Your task to perform on an android device: Search for "macbook pro 15 inch" on newegg.com, select the first entry, add it to the cart, then select checkout. Image 0: 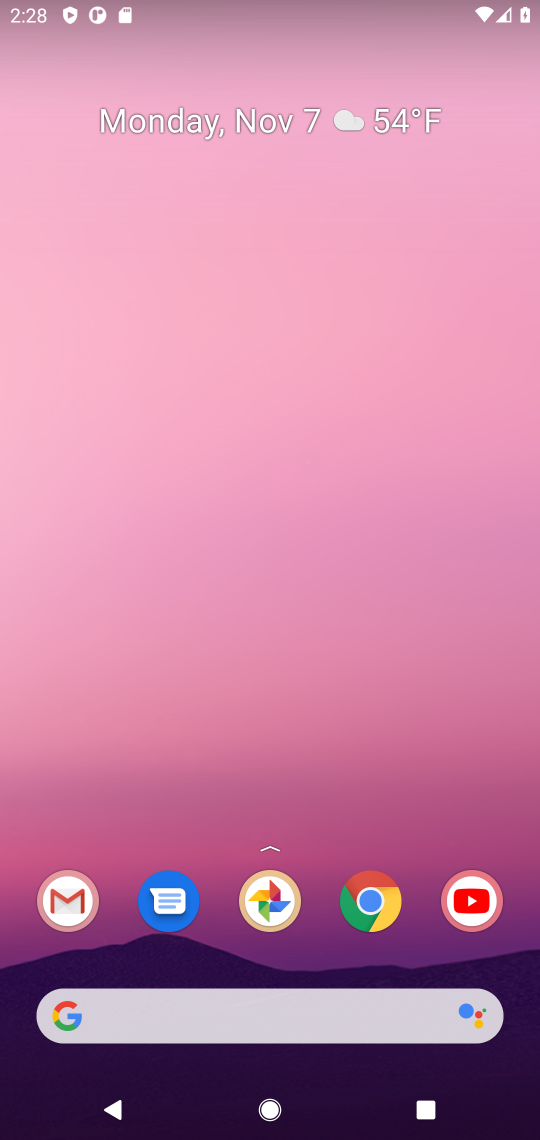
Step 0: click (373, 902)
Your task to perform on an android device: Search for "macbook pro 15 inch" on newegg.com, select the first entry, add it to the cart, then select checkout. Image 1: 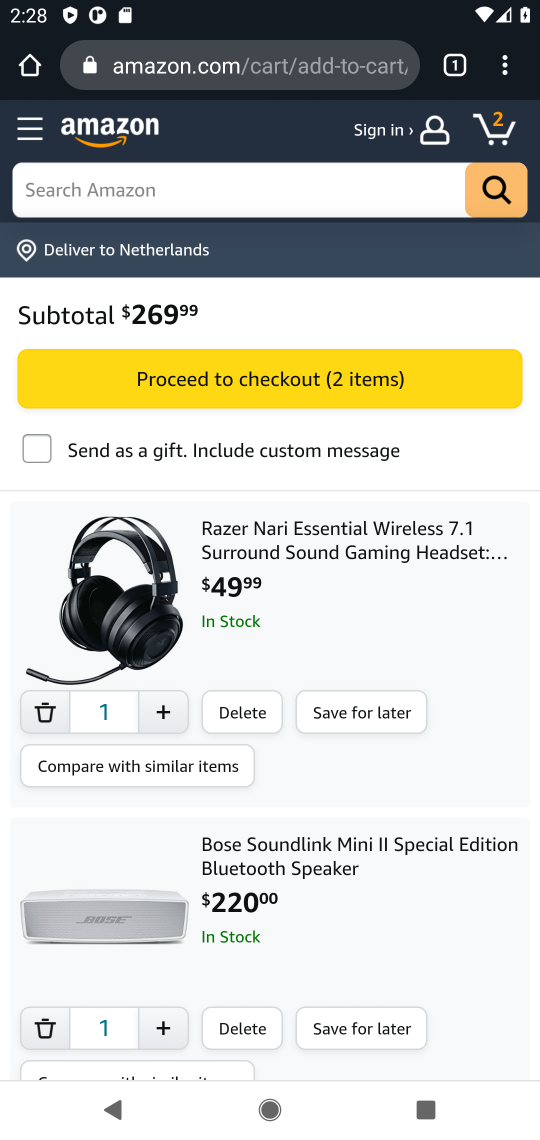
Step 1: click (194, 69)
Your task to perform on an android device: Search for "macbook pro 15 inch" on newegg.com, select the first entry, add it to the cart, then select checkout. Image 2: 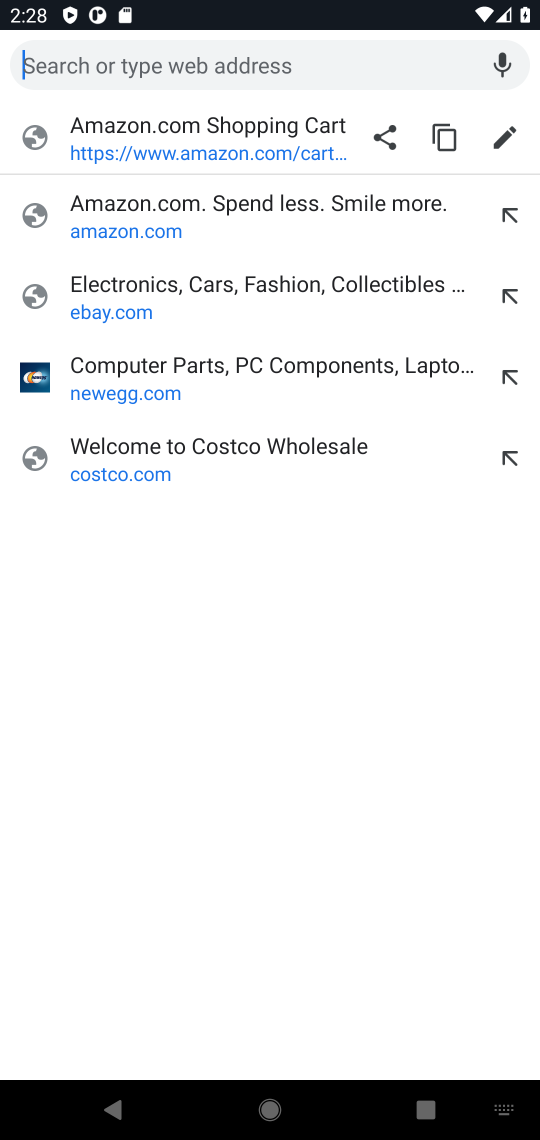
Step 2: click (134, 387)
Your task to perform on an android device: Search for "macbook pro 15 inch" on newegg.com, select the first entry, add it to the cart, then select checkout. Image 3: 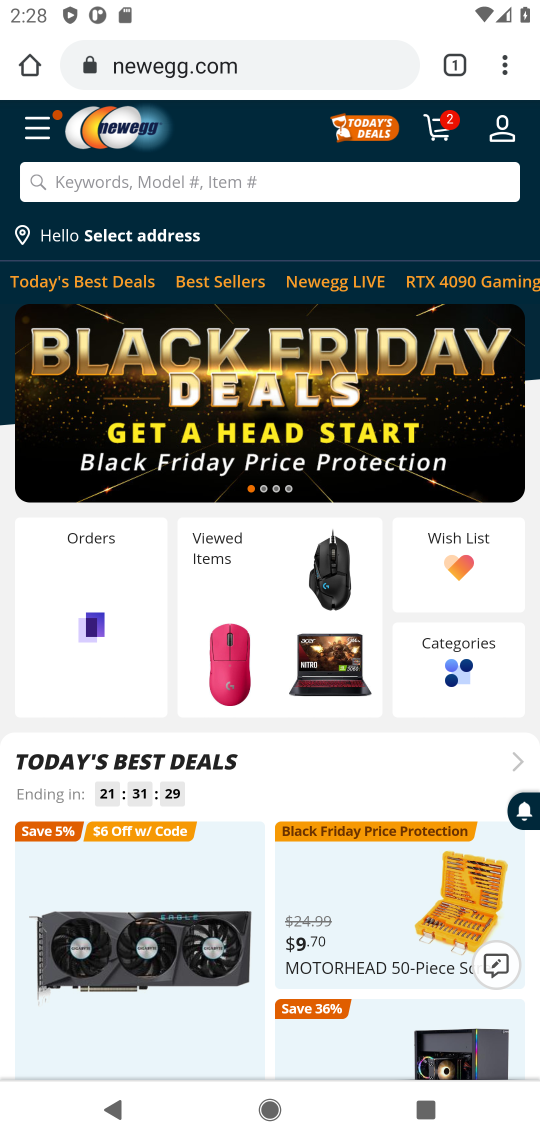
Step 3: click (218, 184)
Your task to perform on an android device: Search for "macbook pro 15 inch" on newegg.com, select the first entry, add it to the cart, then select checkout. Image 4: 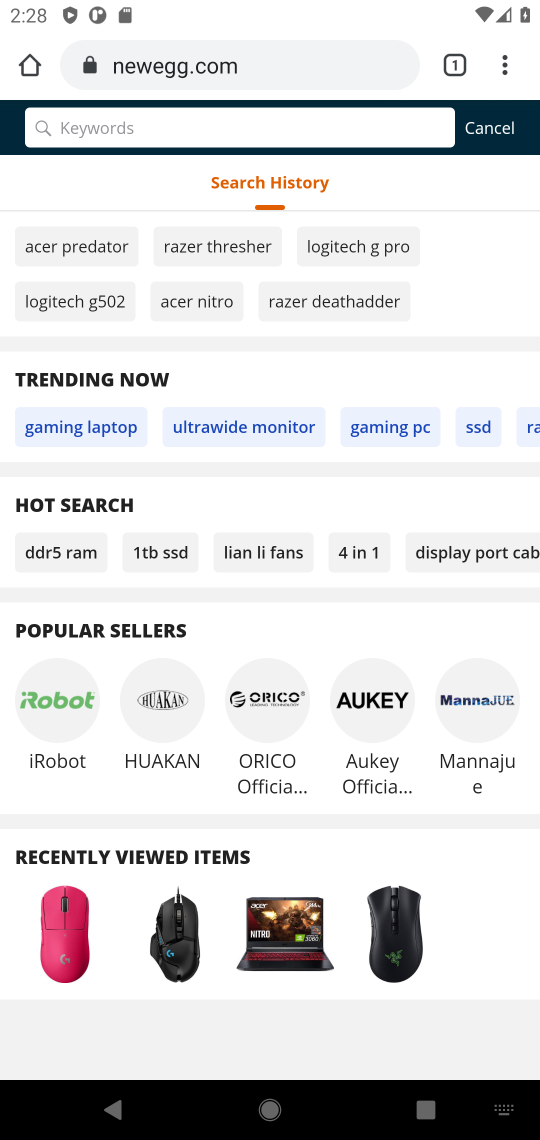
Step 4: type "macbook pro 15 inch"
Your task to perform on an android device: Search for "macbook pro 15 inch" on newegg.com, select the first entry, add it to the cart, then select checkout. Image 5: 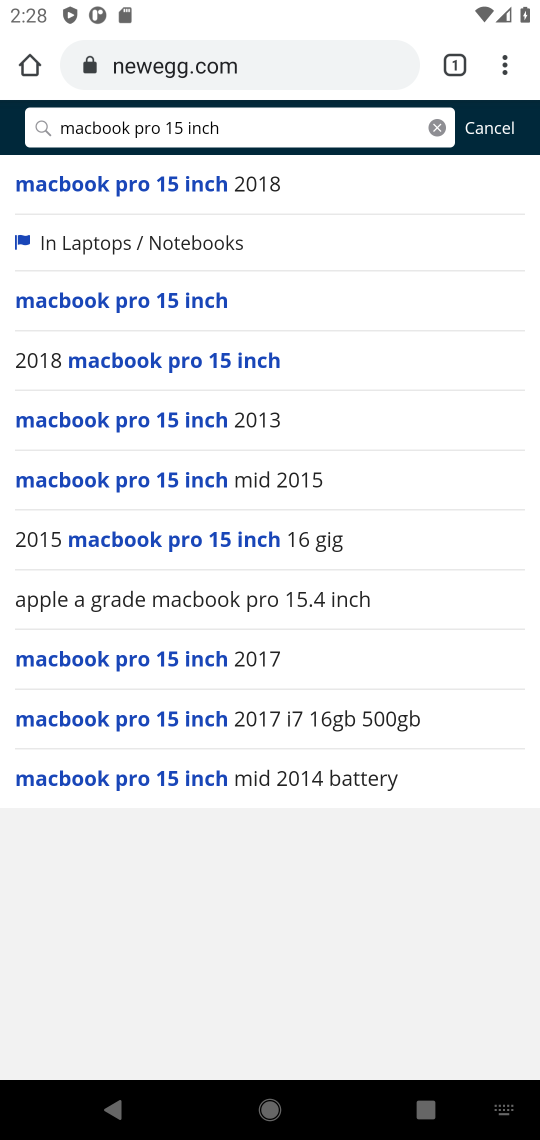
Step 5: click (106, 297)
Your task to perform on an android device: Search for "macbook pro 15 inch" on newegg.com, select the first entry, add it to the cart, then select checkout. Image 6: 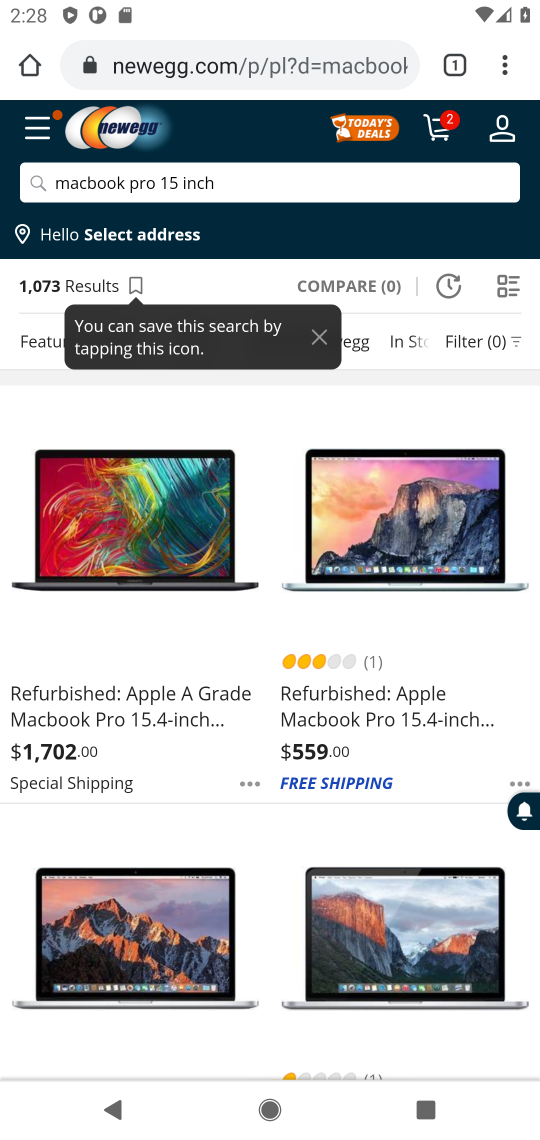
Step 6: task complete